Your task to perform on an android device: Open internet settings Image 0: 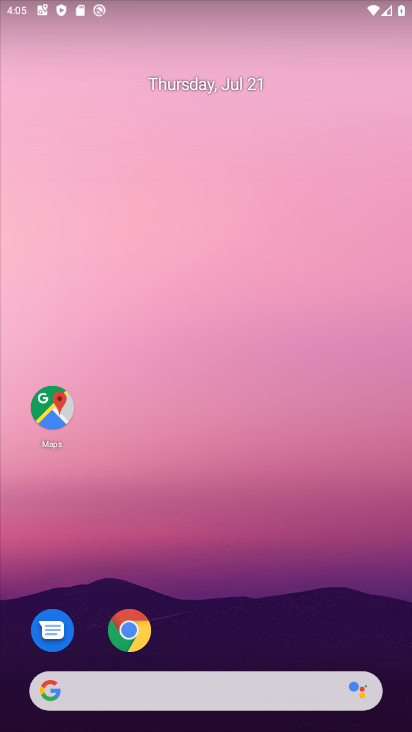
Step 0: drag from (29, 683) to (229, 153)
Your task to perform on an android device: Open internet settings Image 1: 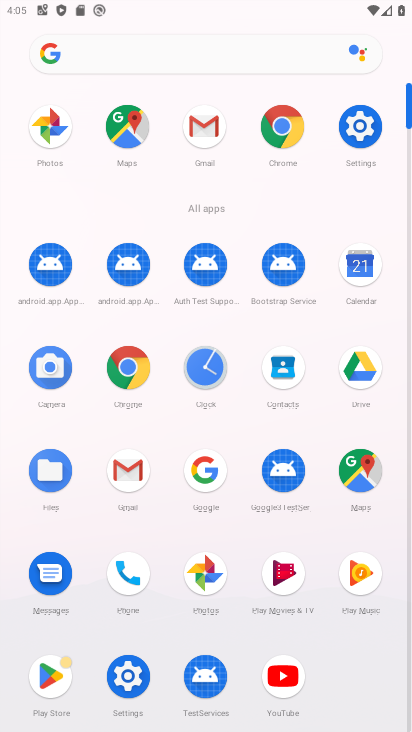
Step 1: click (136, 687)
Your task to perform on an android device: Open internet settings Image 2: 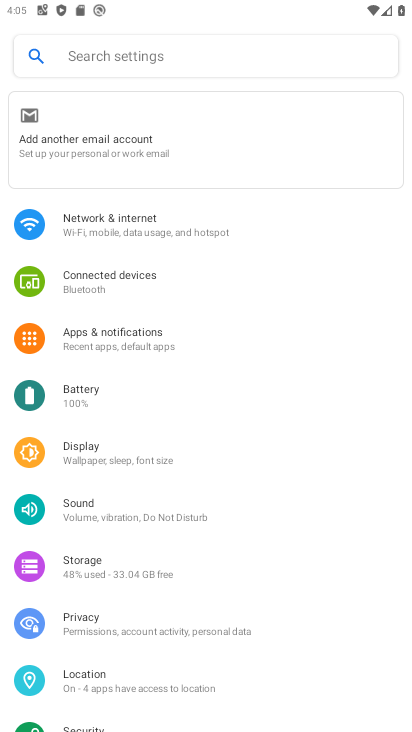
Step 2: click (131, 224)
Your task to perform on an android device: Open internet settings Image 3: 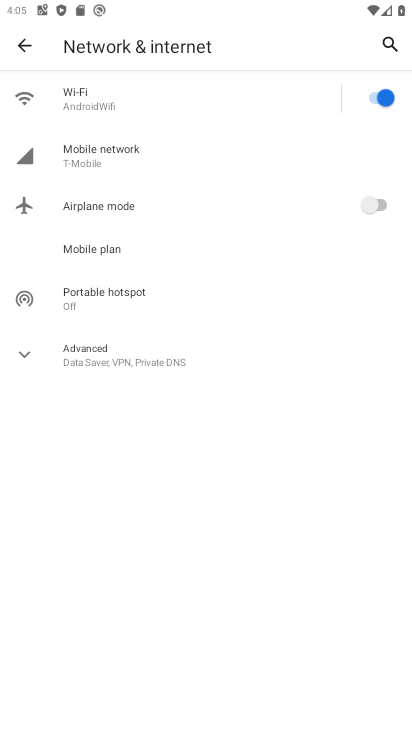
Step 3: task complete